Your task to perform on an android device: find photos in the google photos app Image 0: 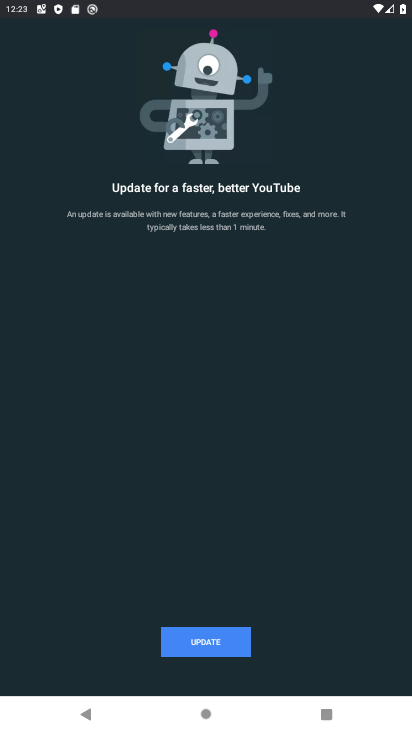
Step 0: press home button
Your task to perform on an android device: find photos in the google photos app Image 1: 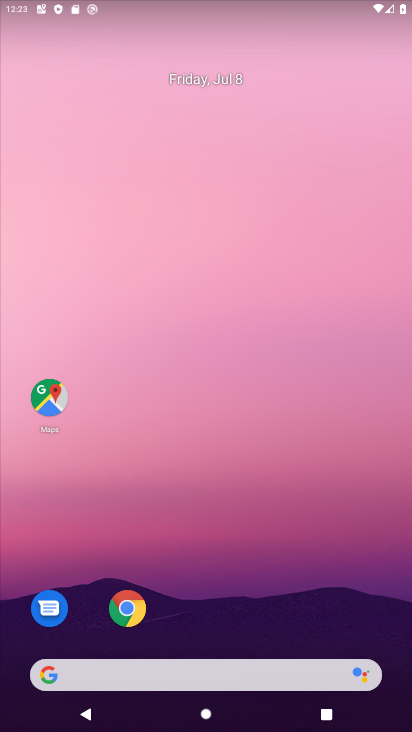
Step 1: drag from (55, 701) to (372, 135)
Your task to perform on an android device: find photos in the google photos app Image 2: 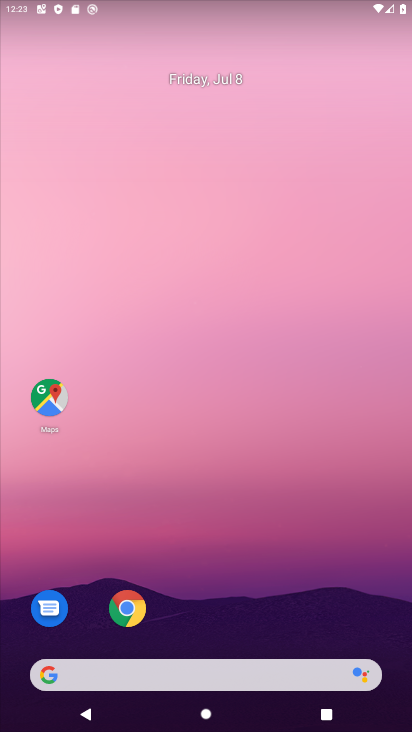
Step 2: drag from (26, 696) to (227, 13)
Your task to perform on an android device: find photos in the google photos app Image 3: 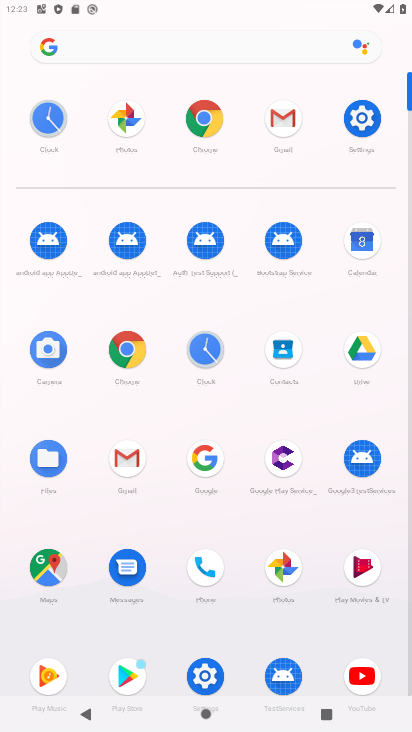
Step 3: click (278, 567)
Your task to perform on an android device: find photos in the google photos app Image 4: 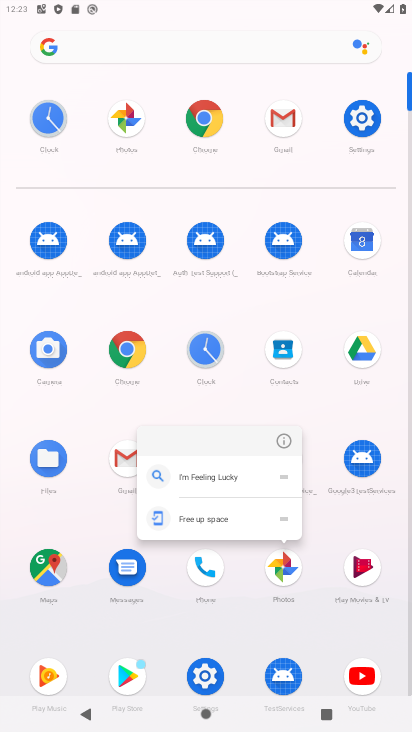
Step 4: click (277, 570)
Your task to perform on an android device: find photos in the google photos app Image 5: 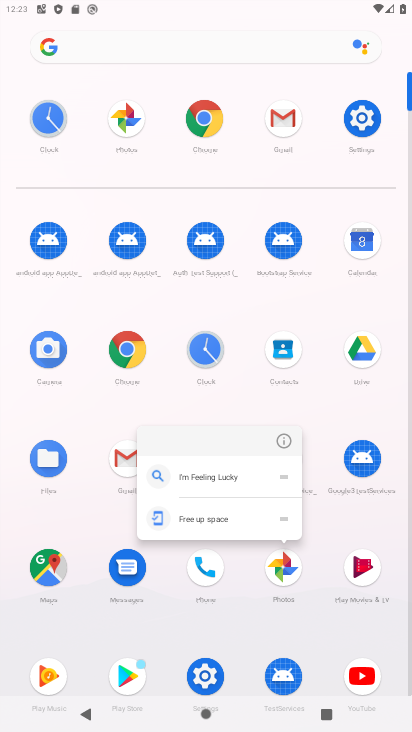
Step 5: click (288, 563)
Your task to perform on an android device: find photos in the google photos app Image 6: 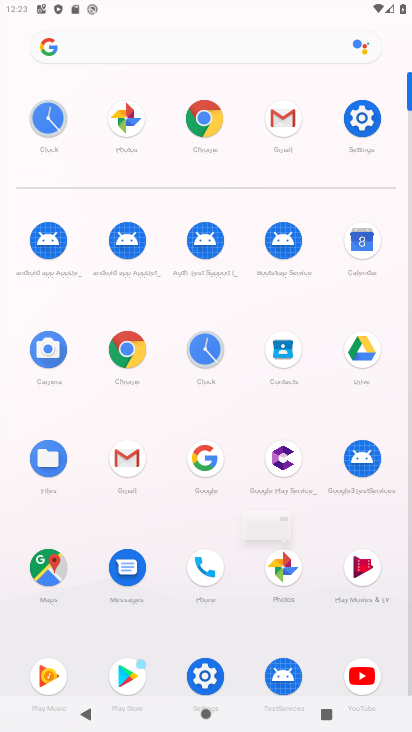
Step 6: click (288, 563)
Your task to perform on an android device: find photos in the google photos app Image 7: 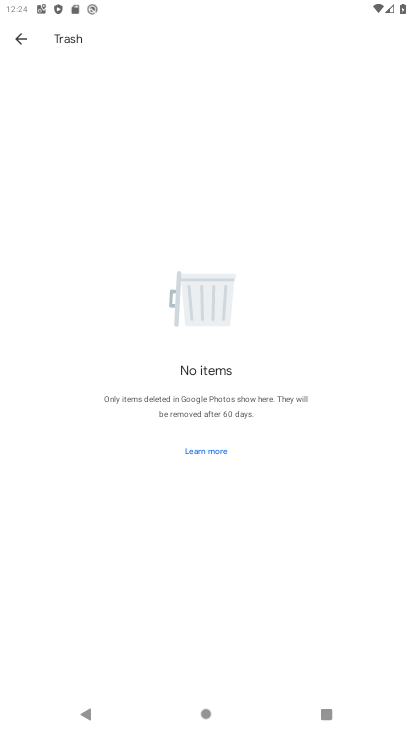
Step 7: click (19, 41)
Your task to perform on an android device: find photos in the google photos app Image 8: 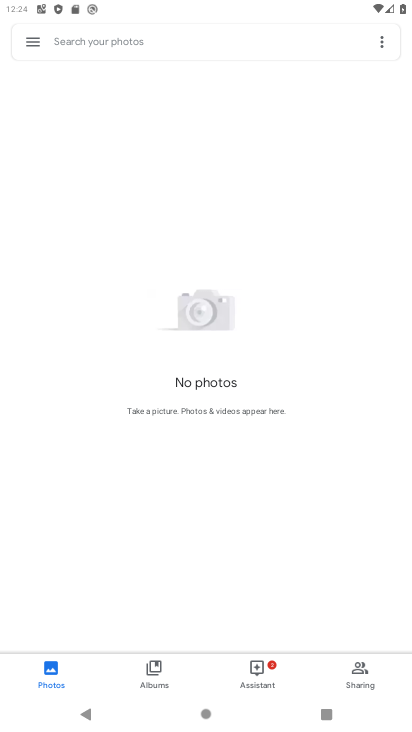
Step 8: task complete